Your task to perform on an android device: change the clock display to digital Image 0: 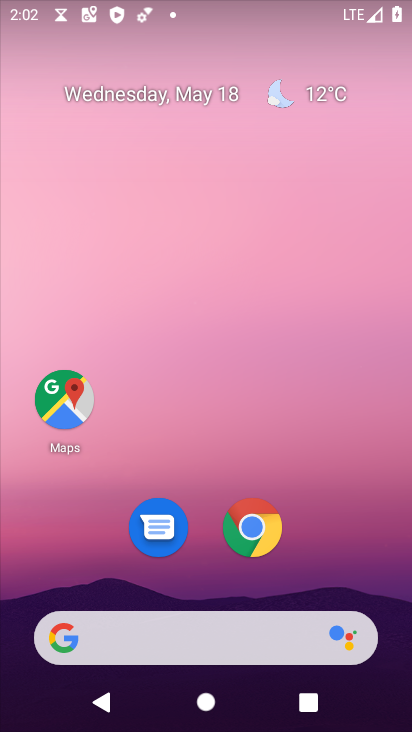
Step 0: press home button
Your task to perform on an android device: change the clock display to digital Image 1: 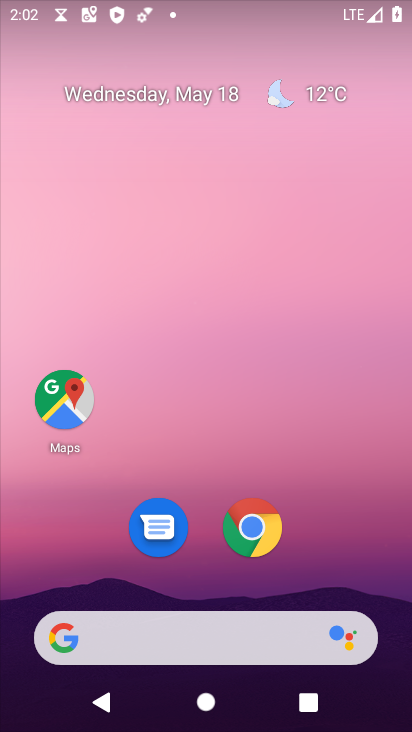
Step 1: drag from (329, 582) to (228, 56)
Your task to perform on an android device: change the clock display to digital Image 2: 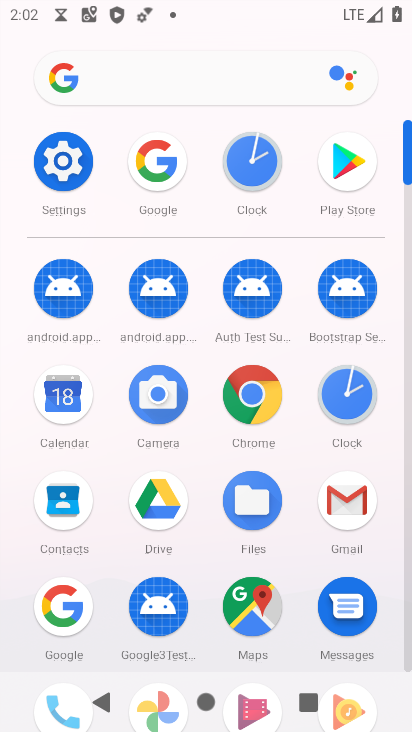
Step 2: click (267, 154)
Your task to perform on an android device: change the clock display to digital Image 3: 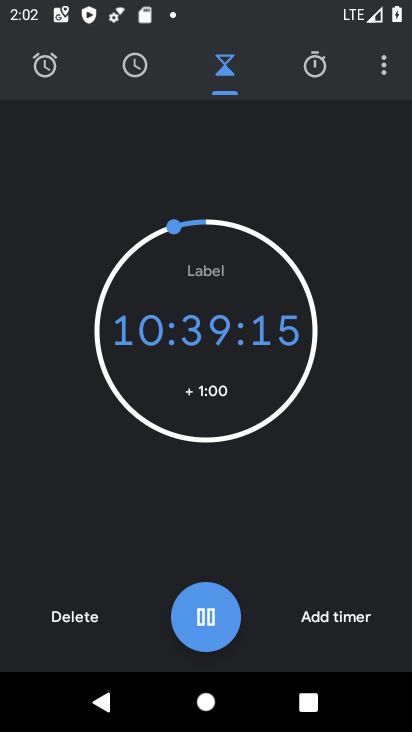
Step 3: click (388, 68)
Your task to perform on an android device: change the clock display to digital Image 4: 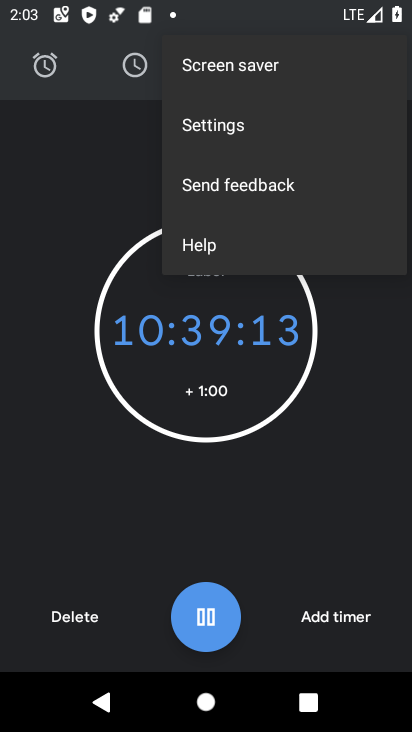
Step 4: click (275, 129)
Your task to perform on an android device: change the clock display to digital Image 5: 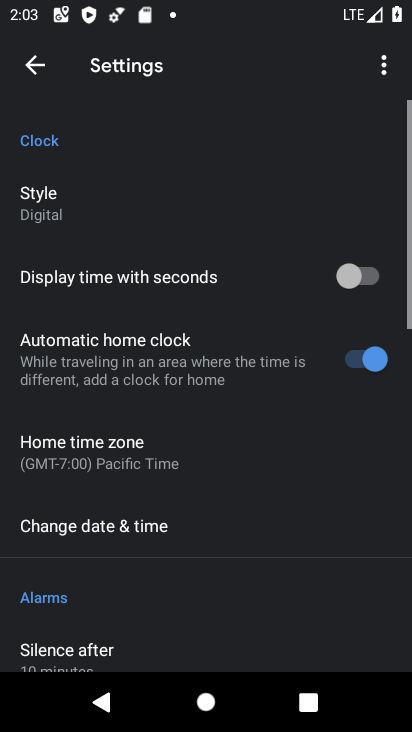
Step 5: click (102, 211)
Your task to perform on an android device: change the clock display to digital Image 6: 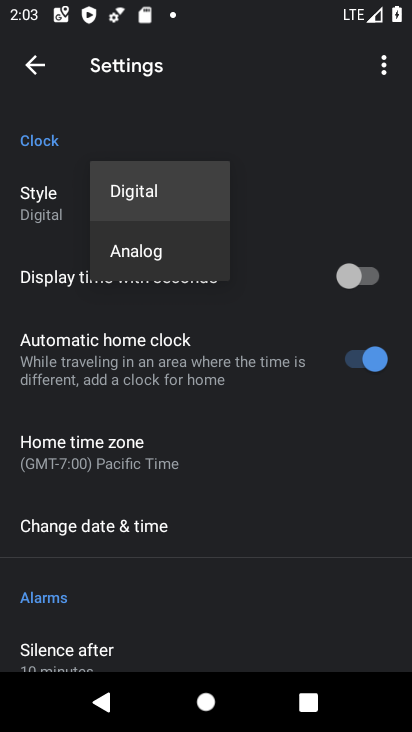
Step 6: click (173, 183)
Your task to perform on an android device: change the clock display to digital Image 7: 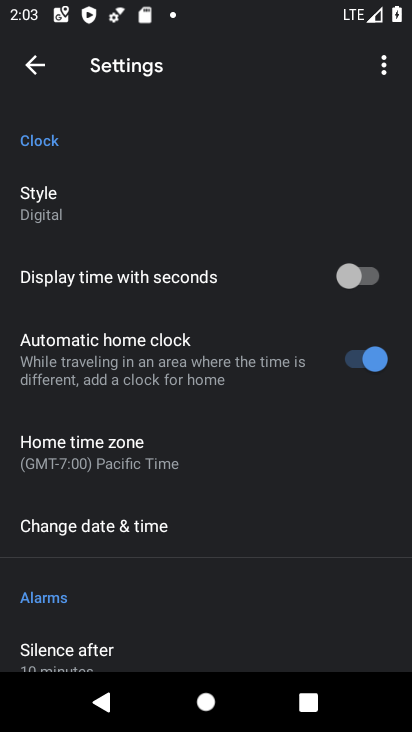
Step 7: task complete